Your task to perform on an android device: Go to Maps Image 0: 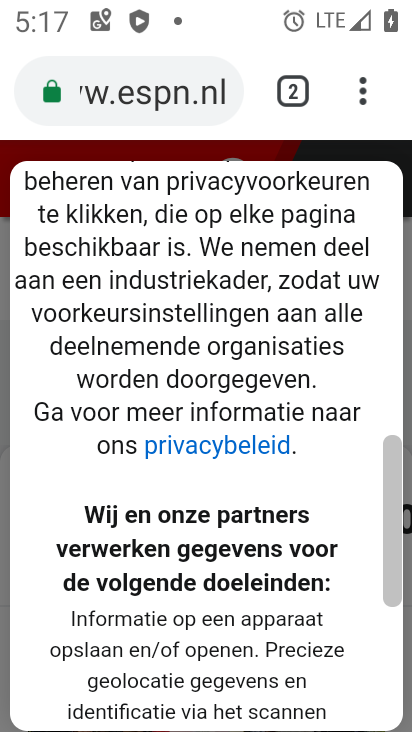
Step 0: press home button
Your task to perform on an android device: Go to Maps Image 1: 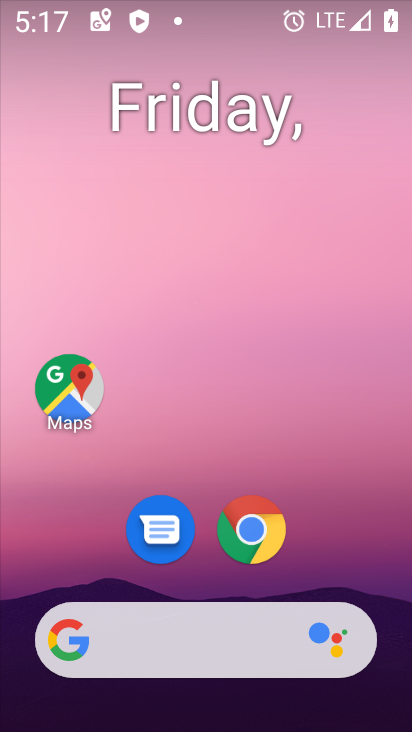
Step 1: click (249, 544)
Your task to perform on an android device: Go to Maps Image 2: 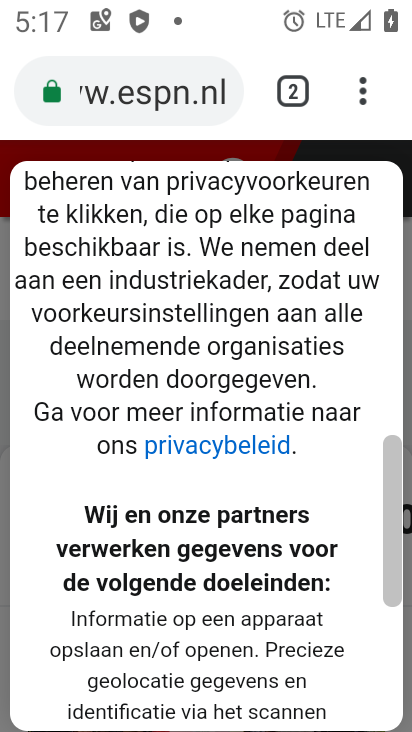
Step 2: click (293, 82)
Your task to perform on an android device: Go to Maps Image 3: 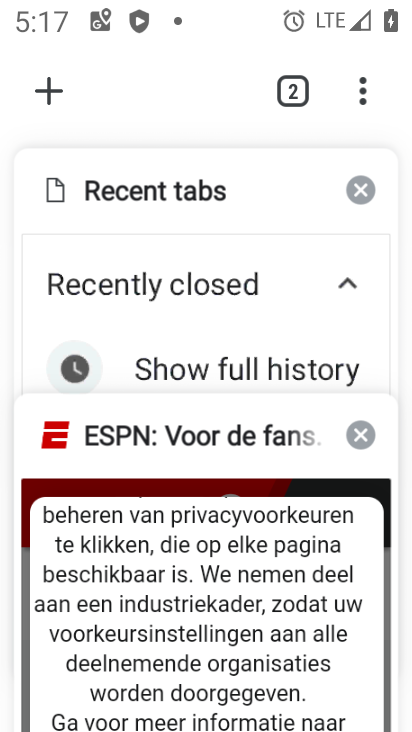
Step 3: click (41, 80)
Your task to perform on an android device: Go to Maps Image 4: 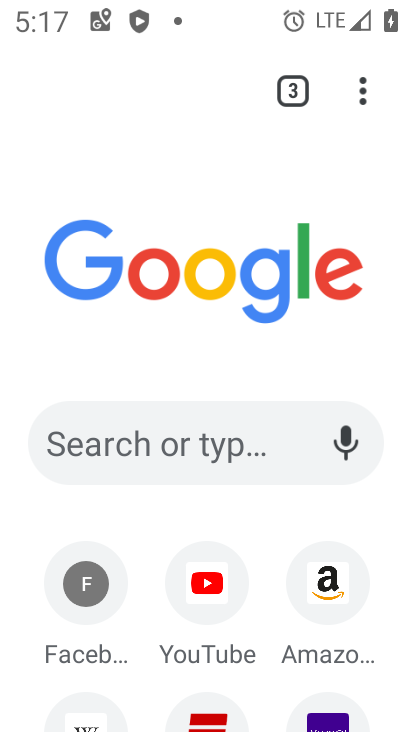
Step 4: click (90, 714)
Your task to perform on an android device: Go to Maps Image 5: 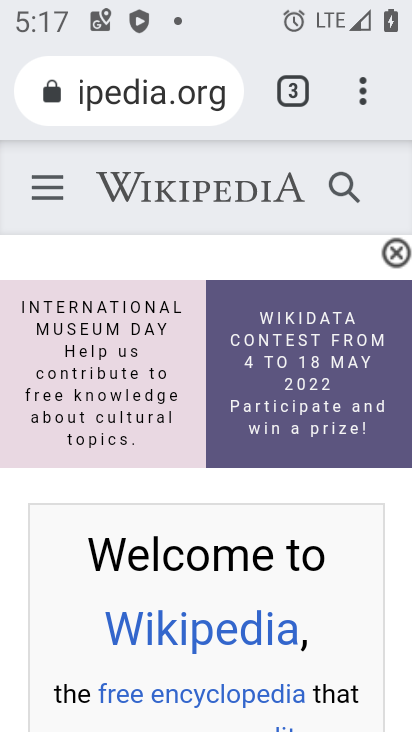
Step 5: task complete